Your task to perform on an android device: clear history in the chrome app Image 0: 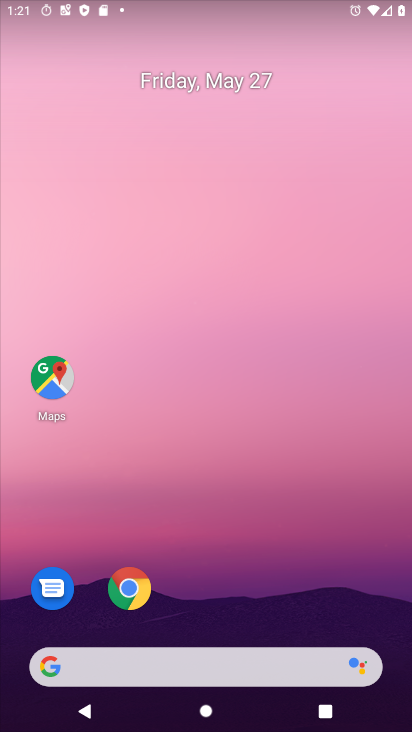
Step 0: press home button
Your task to perform on an android device: clear history in the chrome app Image 1: 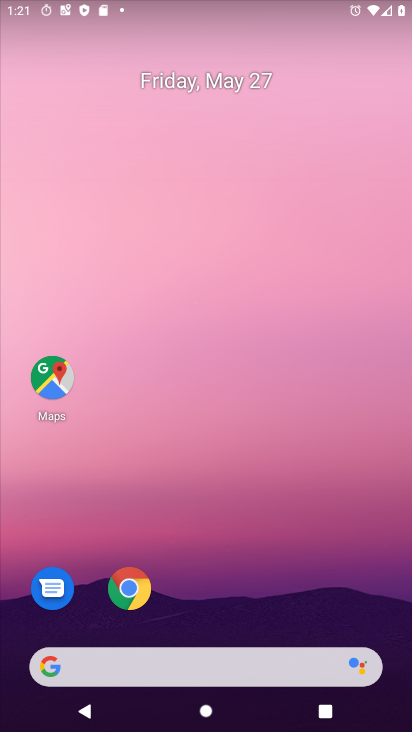
Step 1: click (126, 583)
Your task to perform on an android device: clear history in the chrome app Image 2: 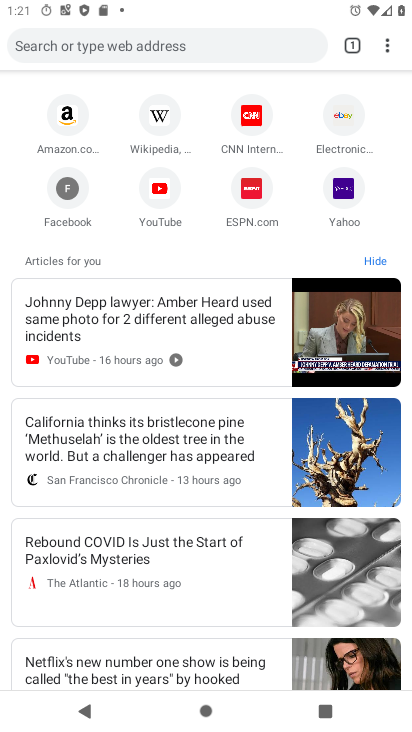
Step 2: click (386, 45)
Your task to perform on an android device: clear history in the chrome app Image 3: 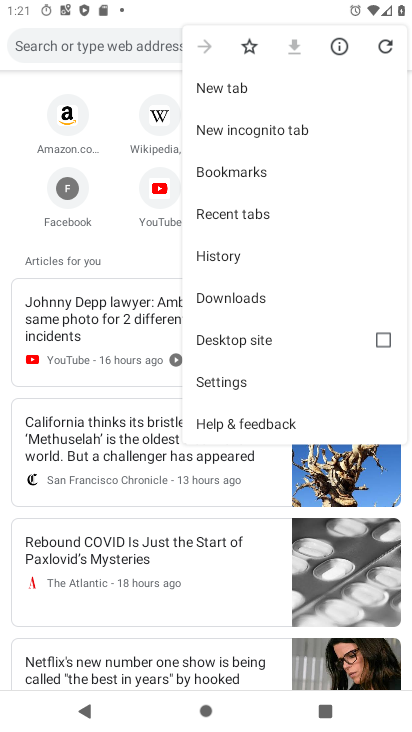
Step 3: click (252, 254)
Your task to perform on an android device: clear history in the chrome app Image 4: 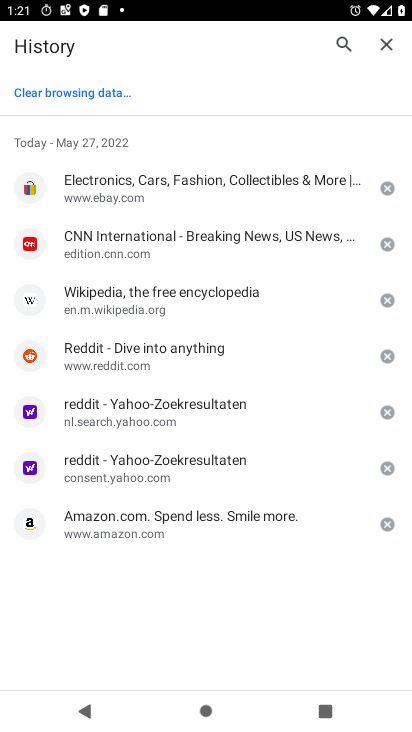
Step 4: click (85, 94)
Your task to perform on an android device: clear history in the chrome app Image 5: 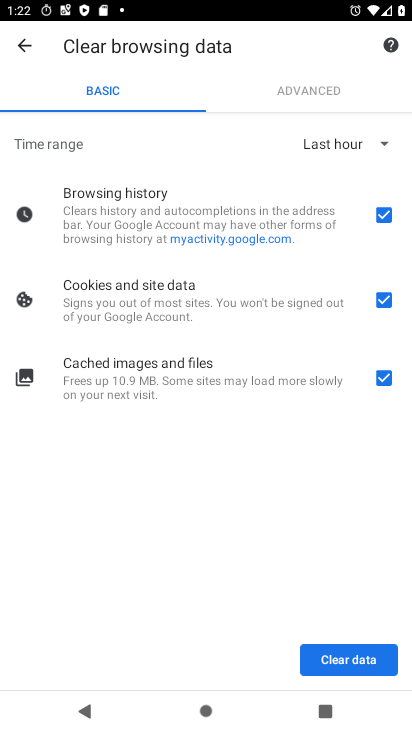
Step 5: click (361, 661)
Your task to perform on an android device: clear history in the chrome app Image 6: 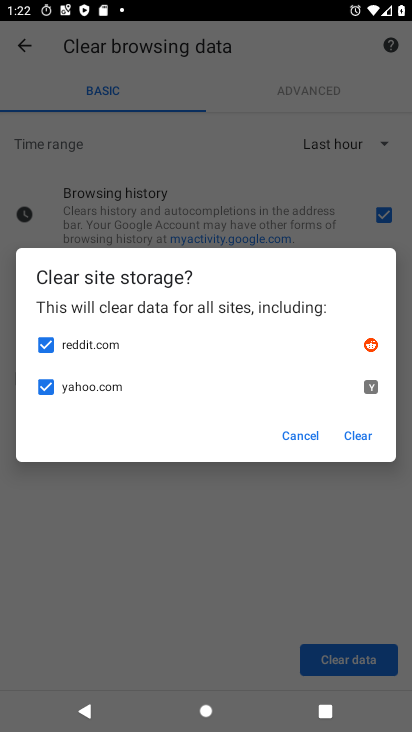
Step 6: click (353, 434)
Your task to perform on an android device: clear history in the chrome app Image 7: 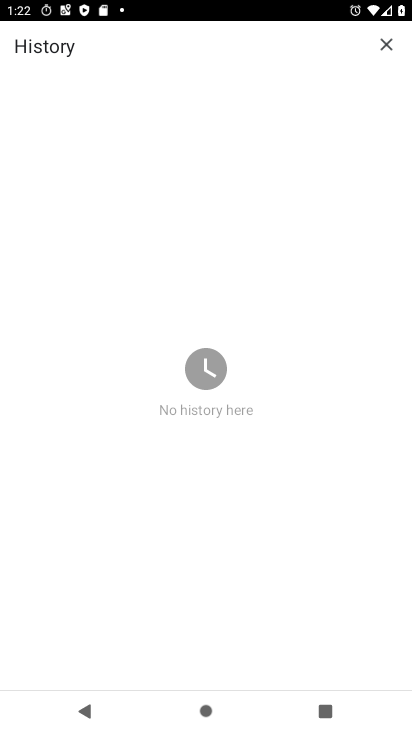
Step 7: task complete